Your task to perform on an android device: turn off data saver in the chrome app Image 0: 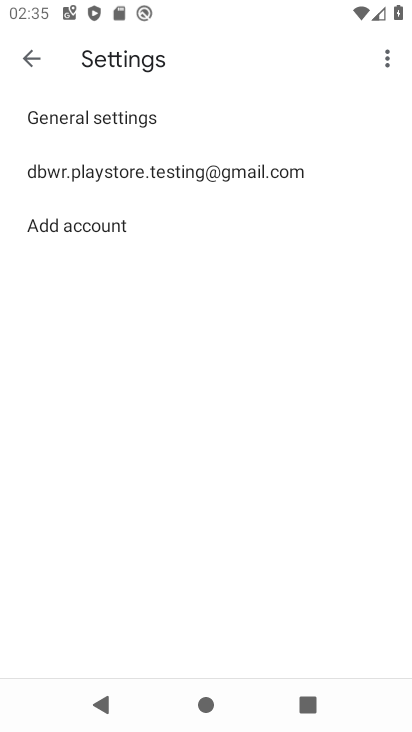
Step 0: press home button
Your task to perform on an android device: turn off data saver in the chrome app Image 1: 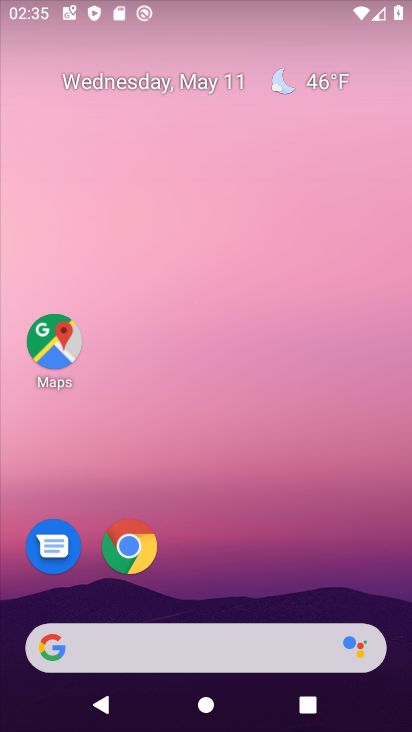
Step 1: drag from (193, 553) to (269, 164)
Your task to perform on an android device: turn off data saver in the chrome app Image 2: 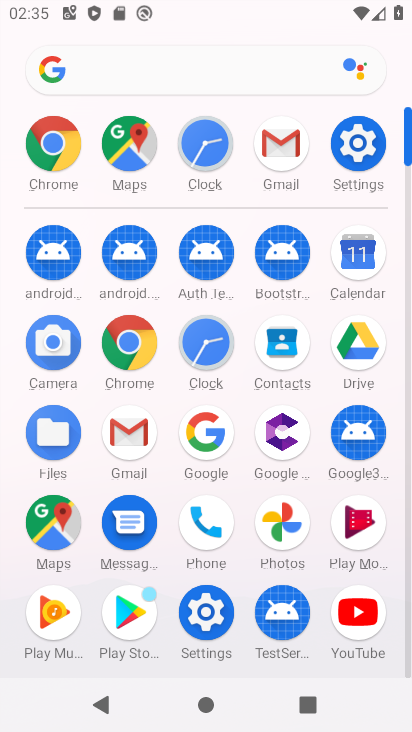
Step 2: click (122, 340)
Your task to perform on an android device: turn off data saver in the chrome app Image 3: 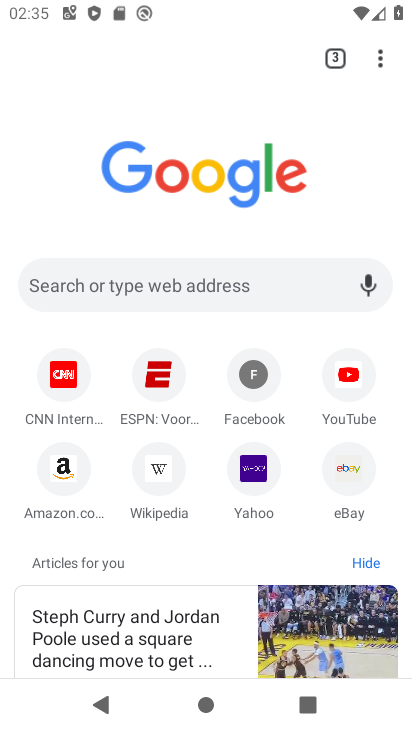
Step 3: drag from (377, 63) to (244, 496)
Your task to perform on an android device: turn off data saver in the chrome app Image 4: 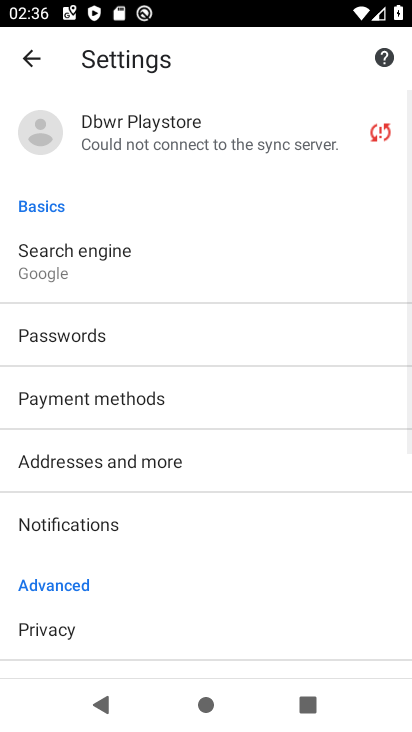
Step 4: drag from (175, 524) to (240, 177)
Your task to perform on an android device: turn off data saver in the chrome app Image 5: 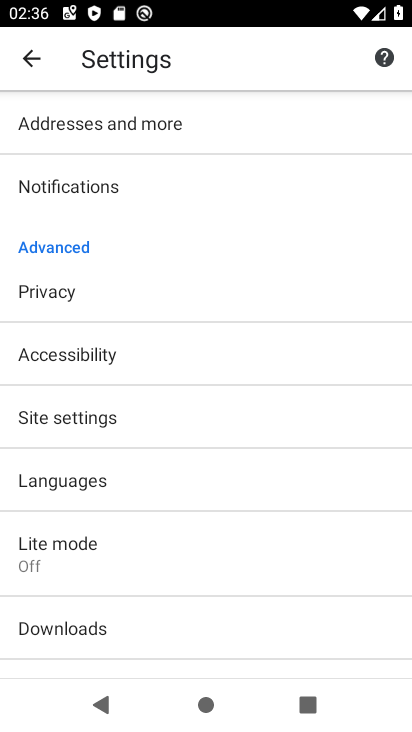
Step 5: click (78, 568)
Your task to perform on an android device: turn off data saver in the chrome app Image 6: 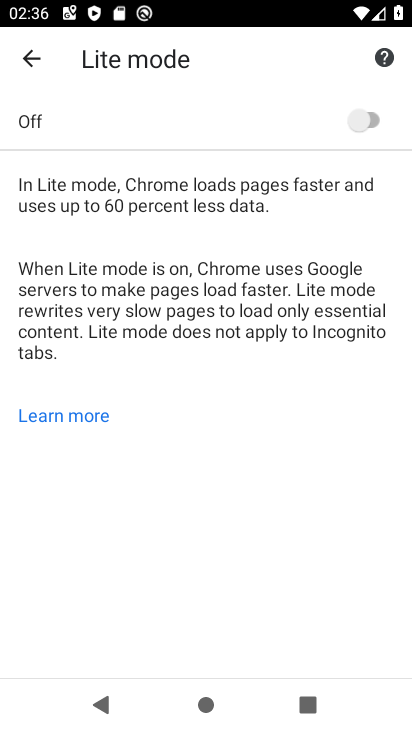
Step 6: task complete